Your task to perform on an android device: find snoozed emails in the gmail app Image 0: 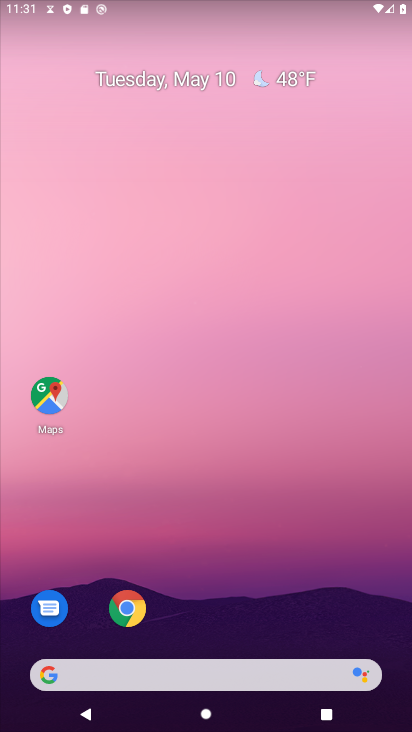
Step 0: drag from (288, 525) to (286, 106)
Your task to perform on an android device: find snoozed emails in the gmail app Image 1: 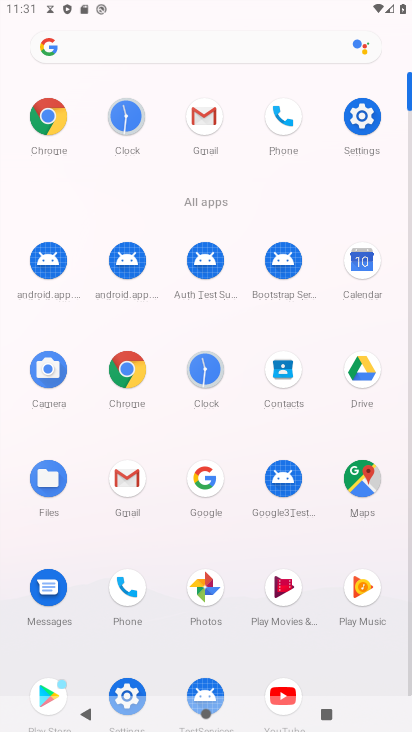
Step 1: click (205, 145)
Your task to perform on an android device: find snoozed emails in the gmail app Image 2: 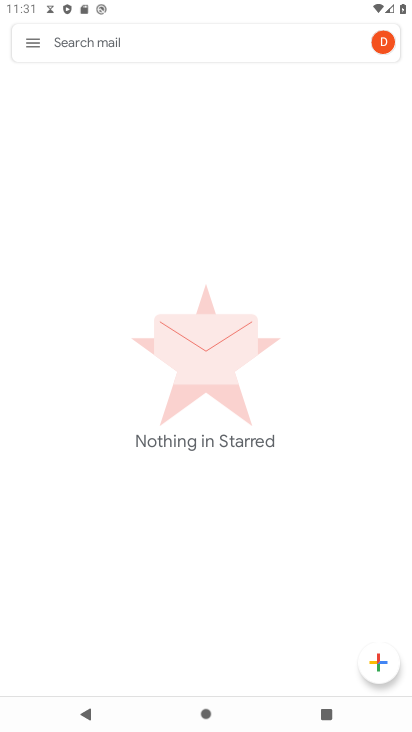
Step 2: click (41, 39)
Your task to perform on an android device: find snoozed emails in the gmail app Image 3: 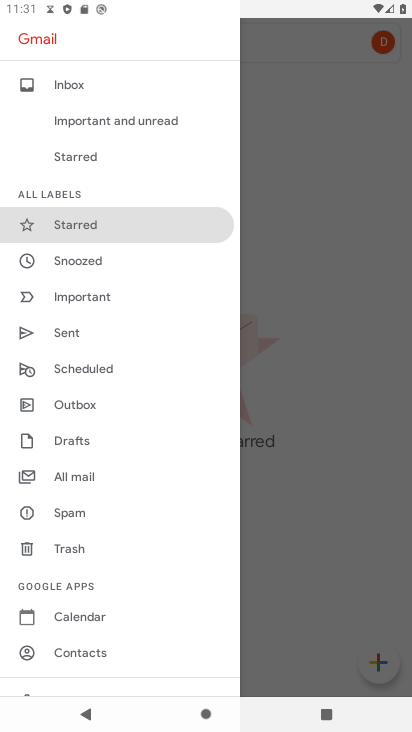
Step 3: click (68, 260)
Your task to perform on an android device: find snoozed emails in the gmail app Image 4: 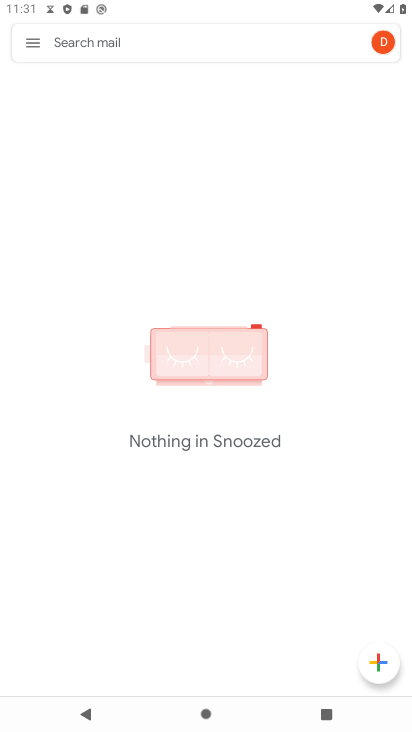
Step 4: task complete